Your task to perform on an android device: Open Reddit.com Image 0: 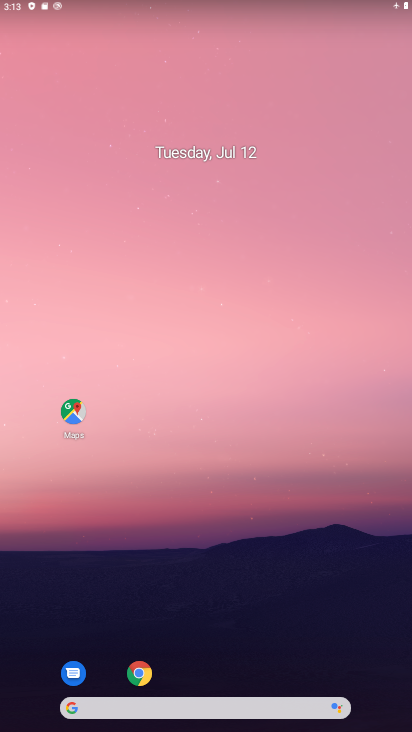
Step 0: click (139, 674)
Your task to perform on an android device: Open Reddit.com Image 1: 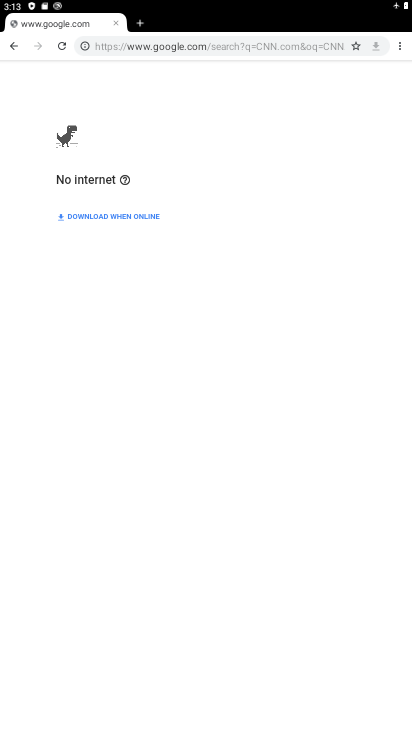
Step 1: press back button
Your task to perform on an android device: Open Reddit.com Image 2: 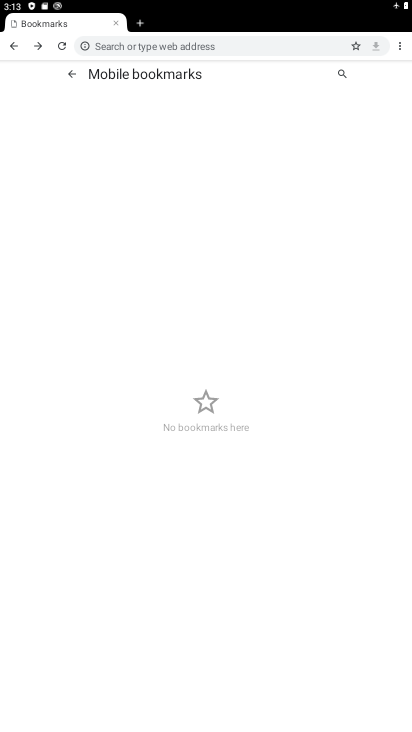
Step 2: press back button
Your task to perform on an android device: Open Reddit.com Image 3: 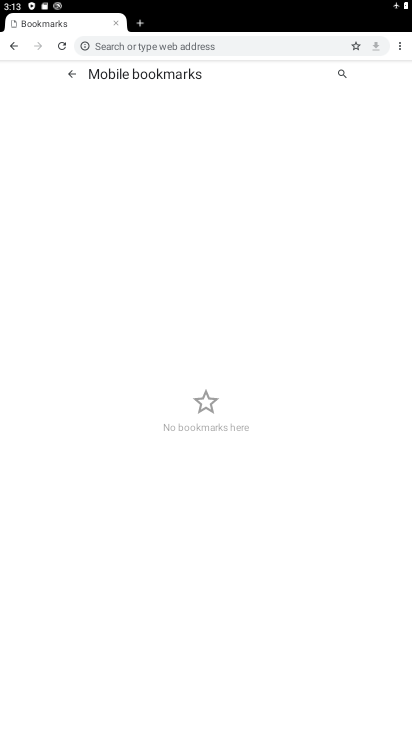
Step 3: press back button
Your task to perform on an android device: Open Reddit.com Image 4: 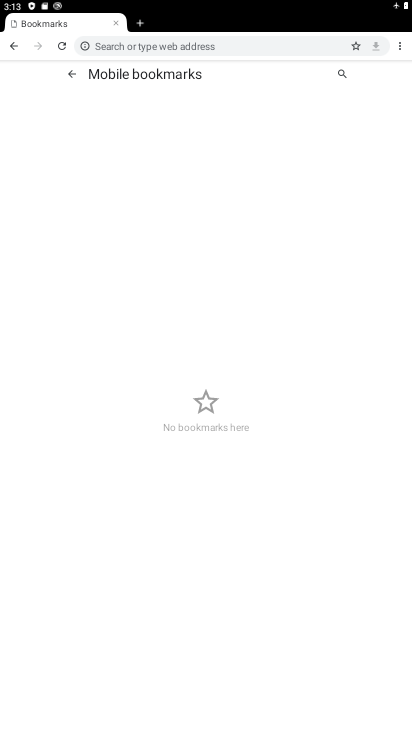
Step 4: press back button
Your task to perform on an android device: Open Reddit.com Image 5: 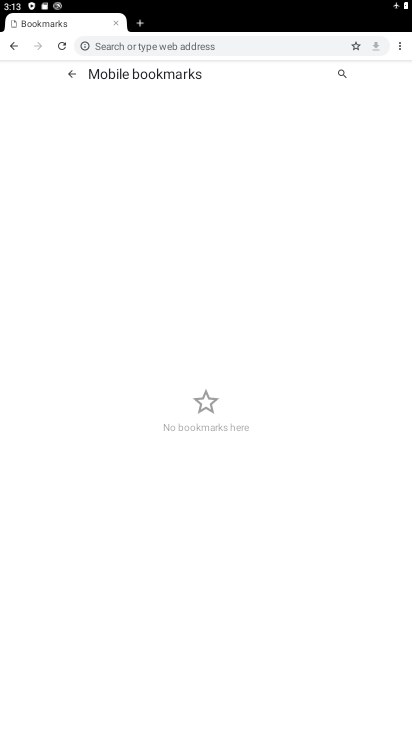
Step 5: press home button
Your task to perform on an android device: Open Reddit.com Image 6: 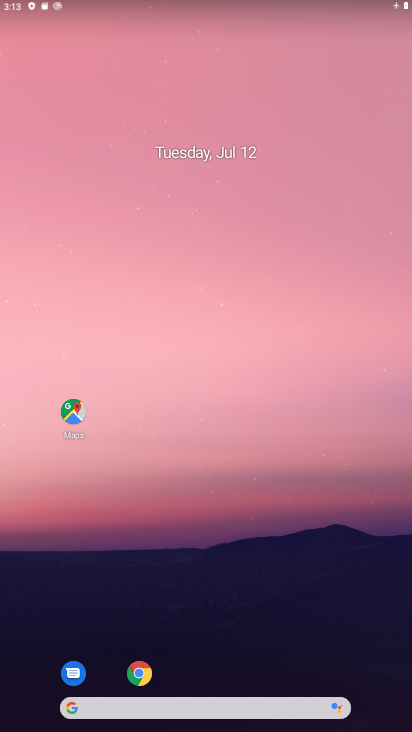
Step 6: drag from (170, 703) to (230, 155)
Your task to perform on an android device: Open Reddit.com Image 7: 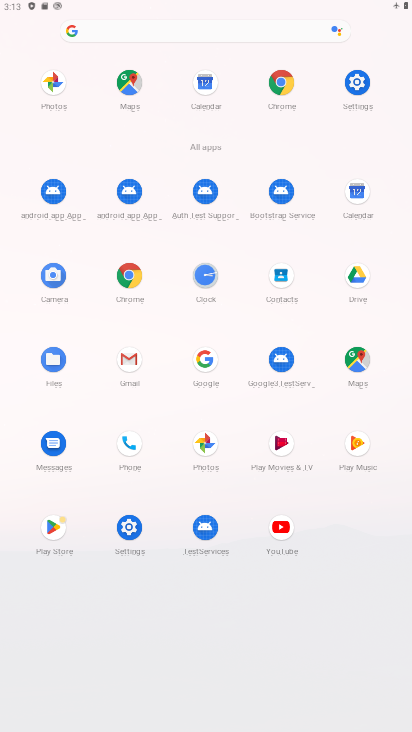
Step 7: click (358, 83)
Your task to perform on an android device: Open Reddit.com Image 8: 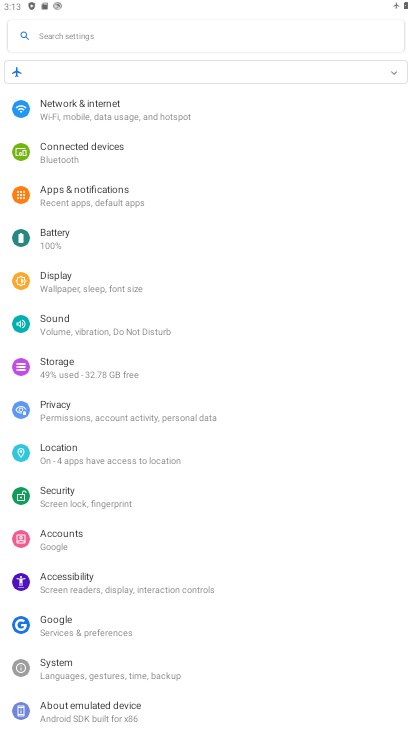
Step 8: click (125, 118)
Your task to perform on an android device: Open Reddit.com Image 9: 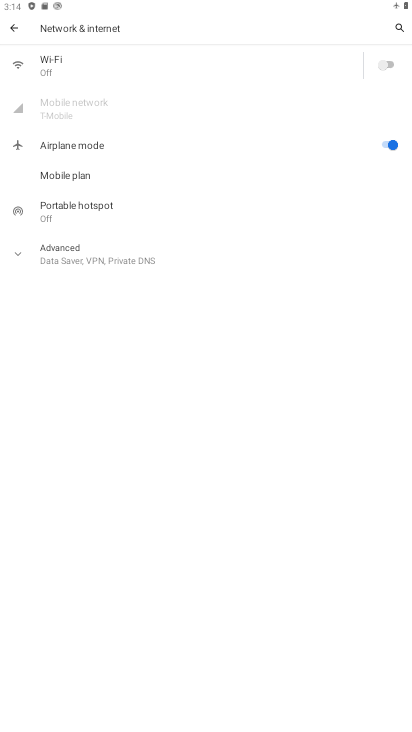
Step 9: click (401, 144)
Your task to perform on an android device: Open Reddit.com Image 10: 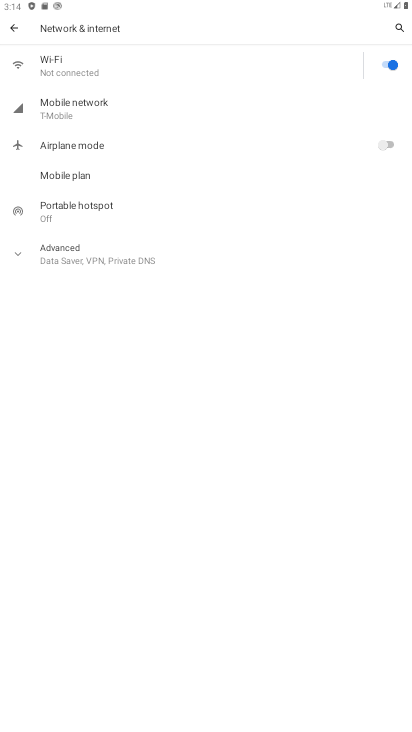
Step 10: press back button
Your task to perform on an android device: Open Reddit.com Image 11: 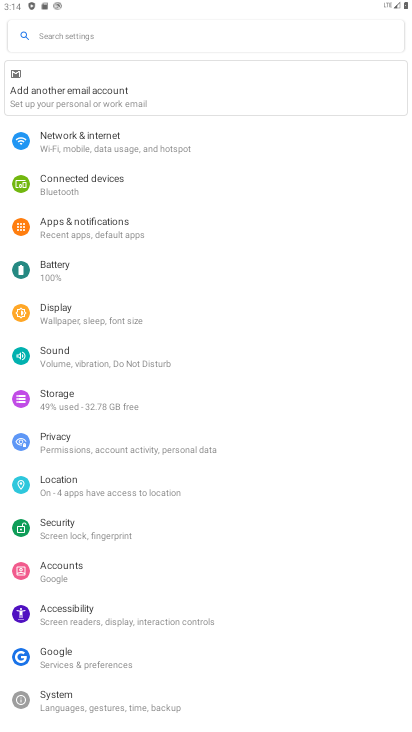
Step 11: press back button
Your task to perform on an android device: Open Reddit.com Image 12: 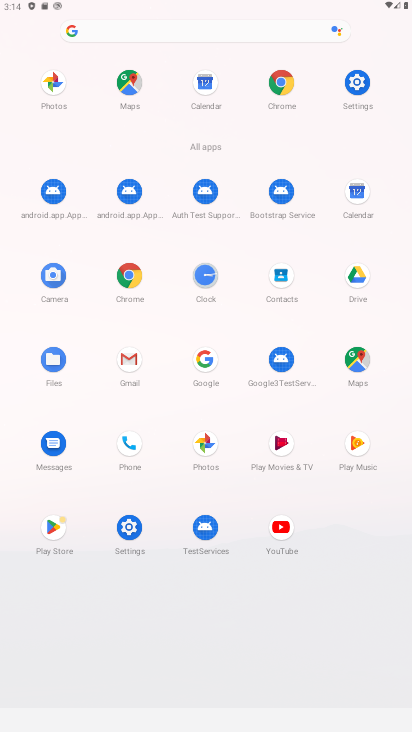
Step 12: click (279, 86)
Your task to perform on an android device: Open Reddit.com Image 13: 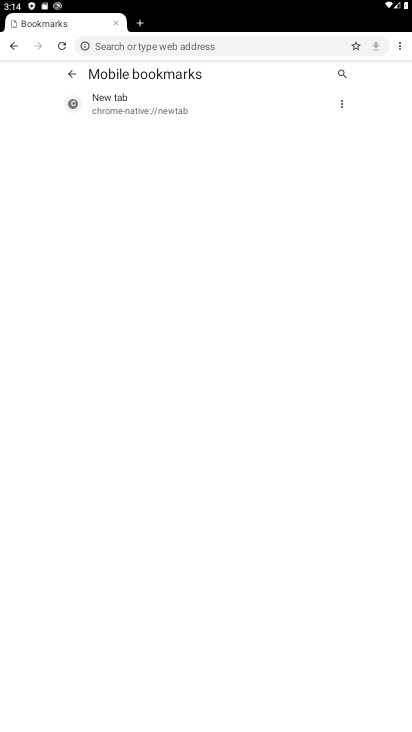
Step 13: click (252, 43)
Your task to perform on an android device: Open Reddit.com Image 14: 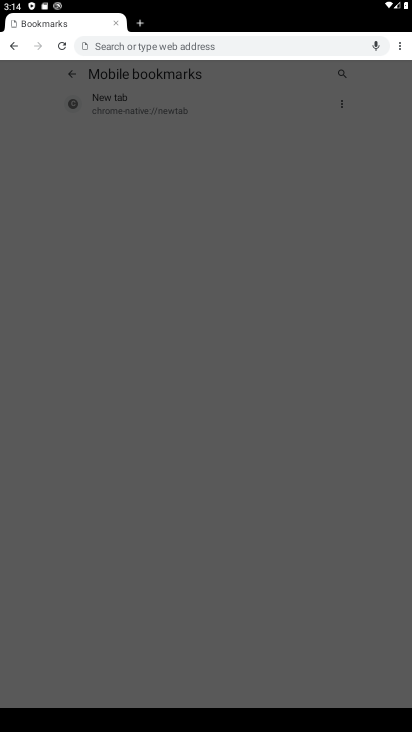
Step 14: type "Reddit.com"
Your task to perform on an android device: Open Reddit.com Image 15: 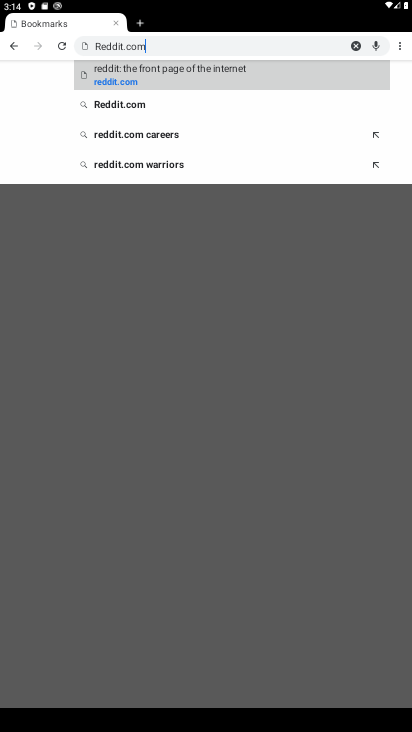
Step 15: click (124, 102)
Your task to perform on an android device: Open Reddit.com Image 16: 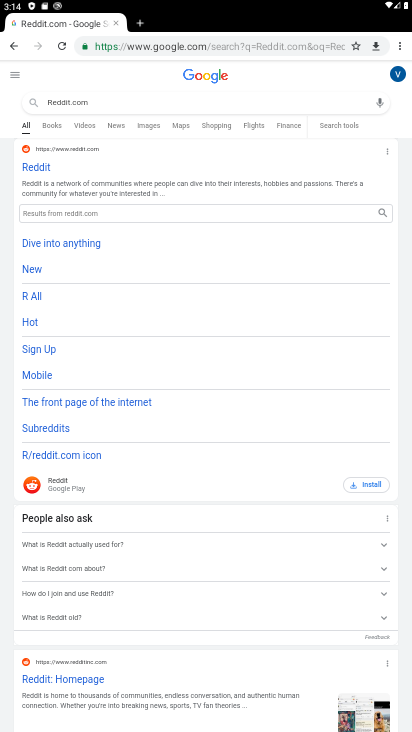
Step 16: click (38, 172)
Your task to perform on an android device: Open Reddit.com Image 17: 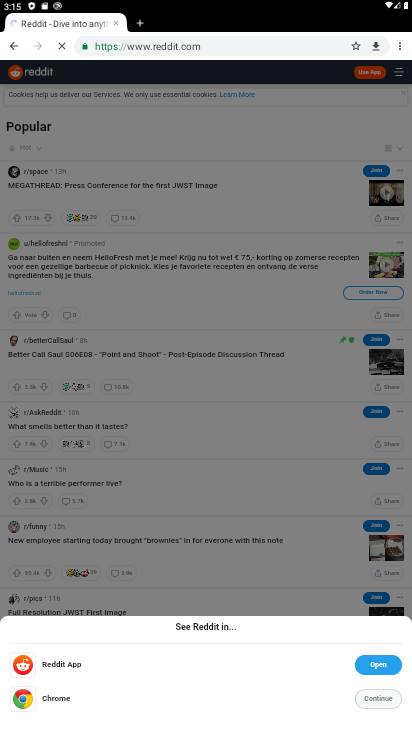
Step 17: click (377, 697)
Your task to perform on an android device: Open Reddit.com Image 18: 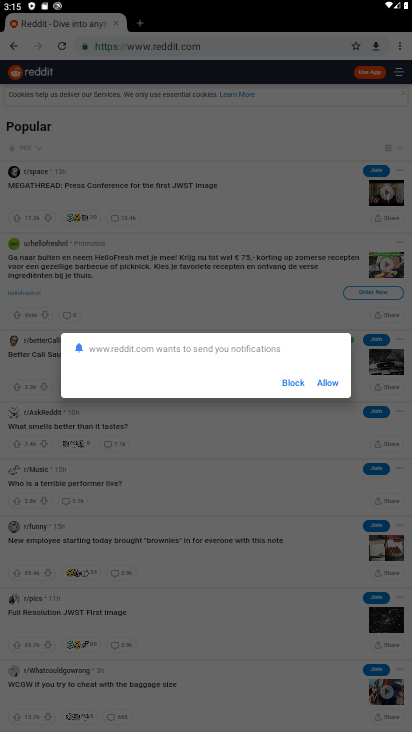
Step 18: click (326, 384)
Your task to perform on an android device: Open Reddit.com Image 19: 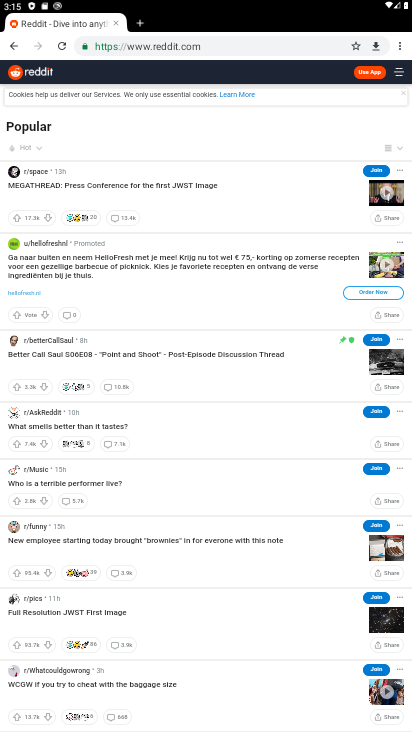
Step 19: task complete